Your task to perform on an android device: remove spam from my inbox in the gmail app Image 0: 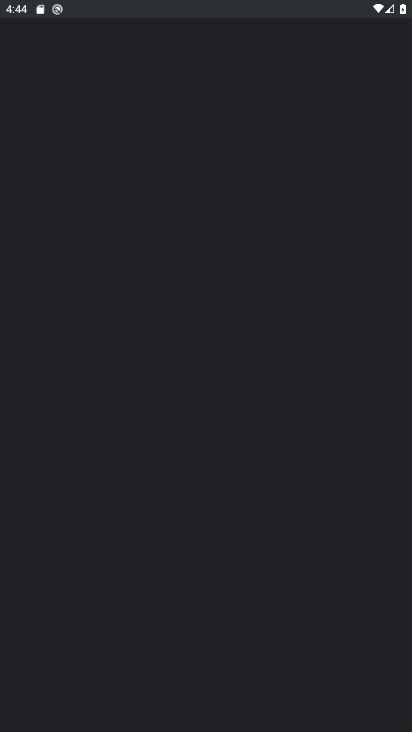
Step 0: drag from (249, 602) to (238, 164)
Your task to perform on an android device: remove spam from my inbox in the gmail app Image 1: 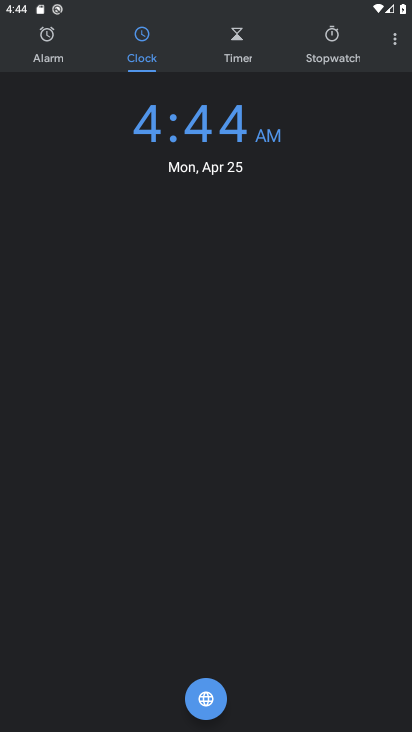
Step 1: press home button
Your task to perform on an android device: remove spam from my inbox in the gmail app Image 2: 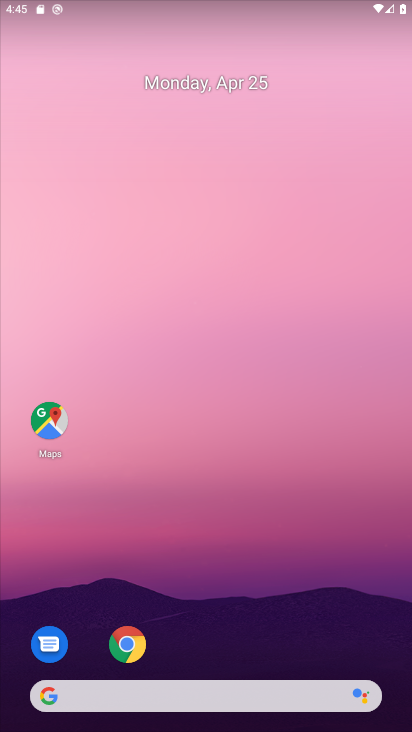
Step 2: drag from (318, 617) to (221, 75)
Your task to perform on an android device: remove spam from my inbox in the gmail app Image 3: 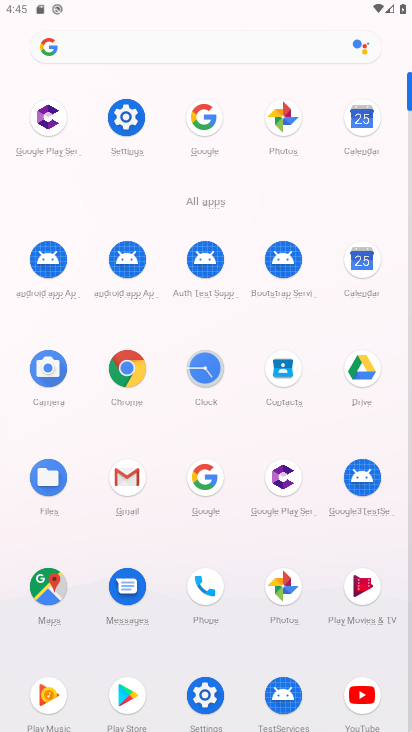
Step 3: click (125, 477)
Your task to perform on an android device: remove spam from my inbox in the gmail app Image 4: 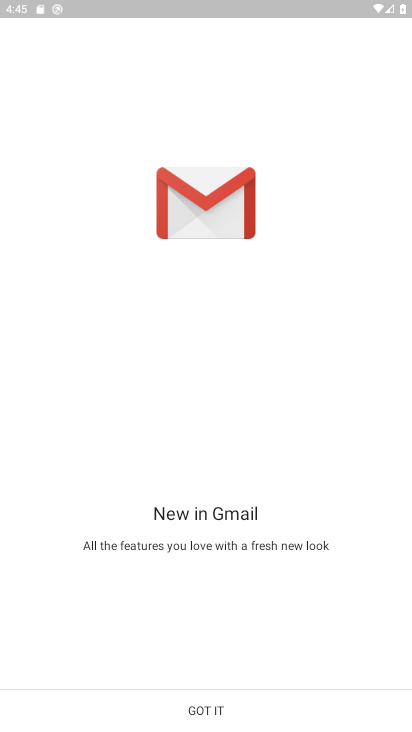
Step 4: click (209, 710)
Your task to perform on an android device: remove spam from my inbox in the gmail app Image 5: 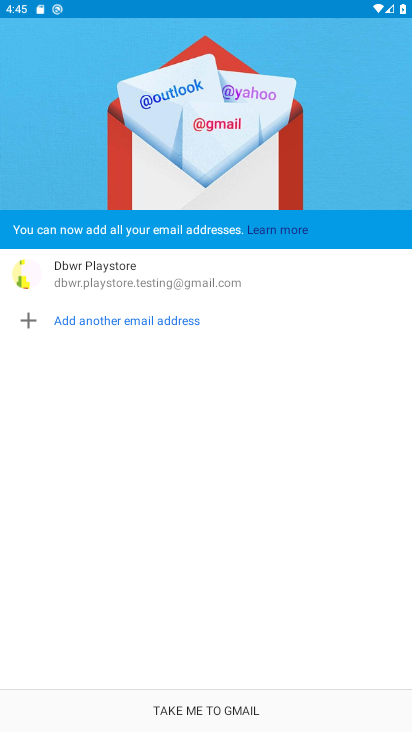
Step 5: click (209, 710)
Your task to perform on an android device: remove spam from my inbox in the gmail app Image 6: 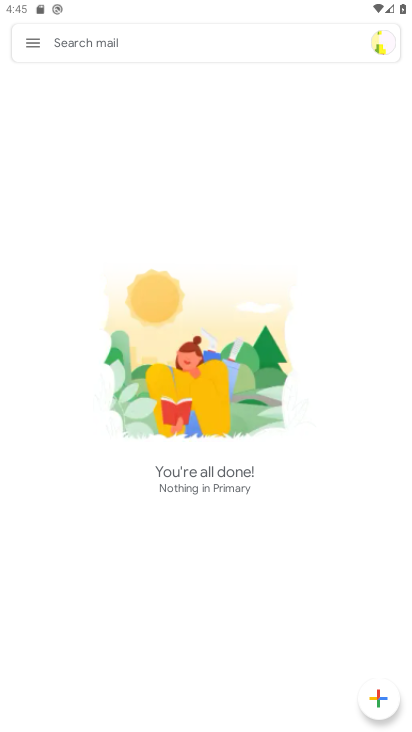
Step 6: click (35, 37)
Your task to perform on an android device: remove spam from my inbox in the gmail app Image 7: 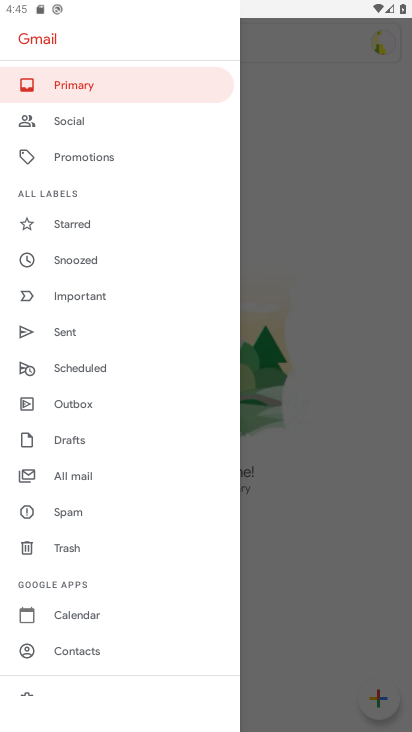
Step 7: click (94, 510)
Your task to perform on an android device: remove spam from my inbox in the gmail app Image 8: 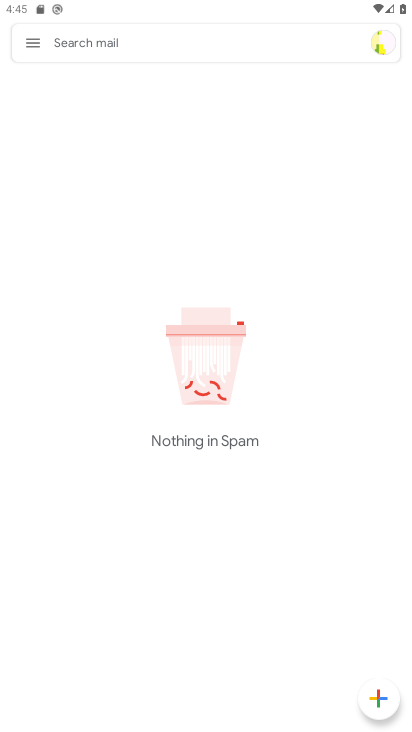
Step 8: task complete